Your task to perform on an android device: add a label to a message in the gmail app Image 0: 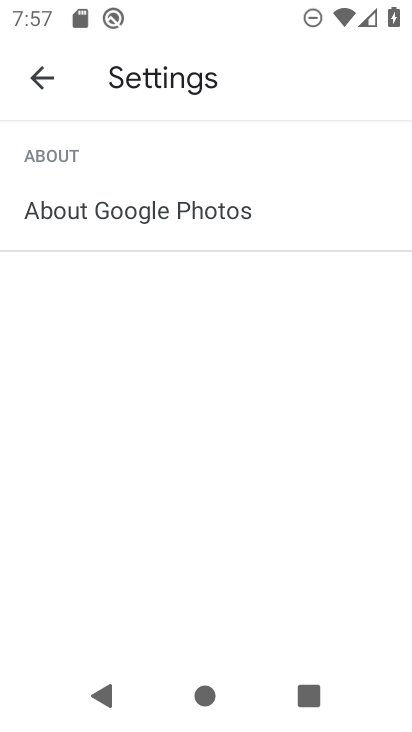
Step 0: press home button
Your task to perform on an android device: add a label to a message in the gmail app Image 1: 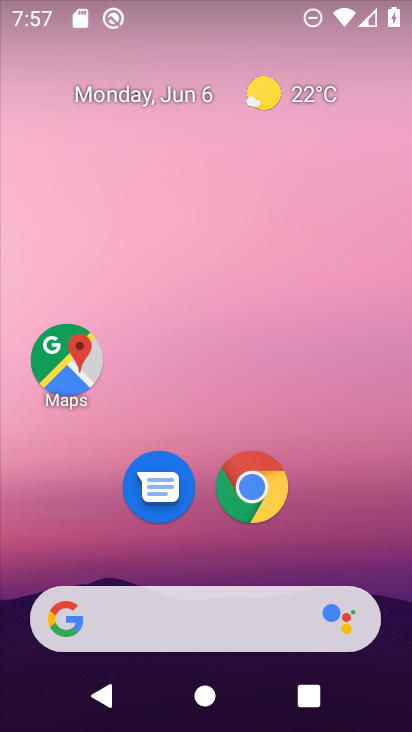
Step 1: drag from (380, 466) to (284, 62)
Your task to perform on an android device: add a label to a message in the gmail app Image 2: 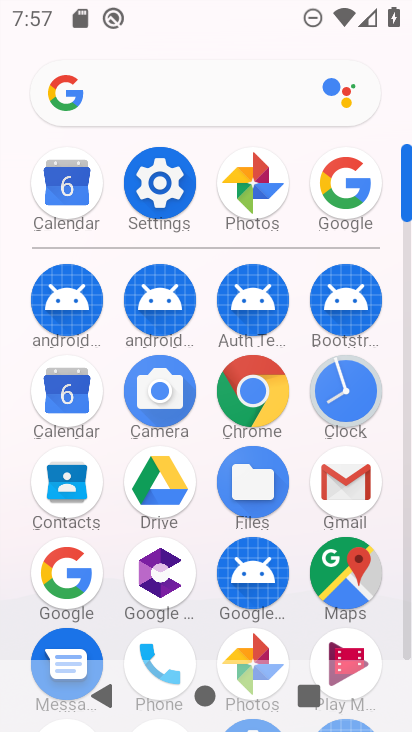
Step 2: click (355, 515)
Your task to perform on an android device: add a label to a message in the gmail app Image 3: 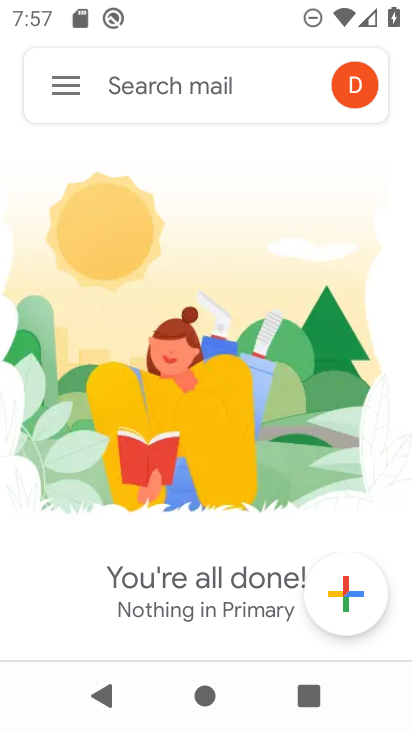
Step 3: task complete